Your task to perform on an android device: What's the weather? Image 0: 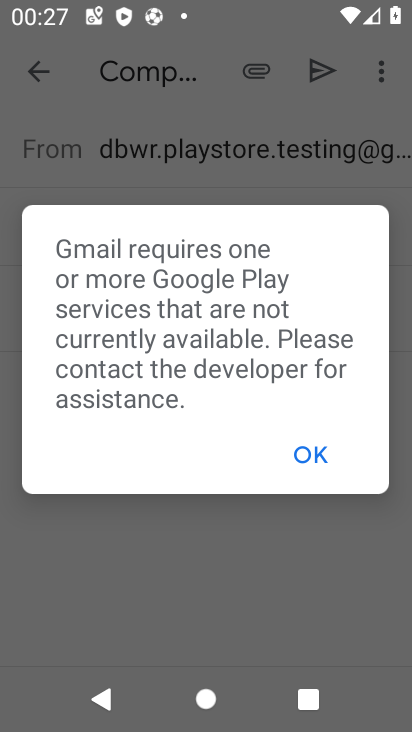
Step 0: click (313, 463)
Your task to perform on an android device: What's the weather? Image 1: 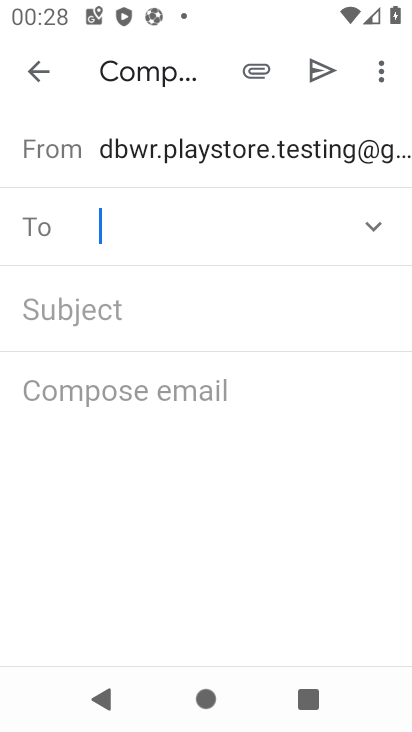
Step 1: drag from (221, 406) to (264, 633)
Your task to perform on an android device: What's the weather? Image 2: 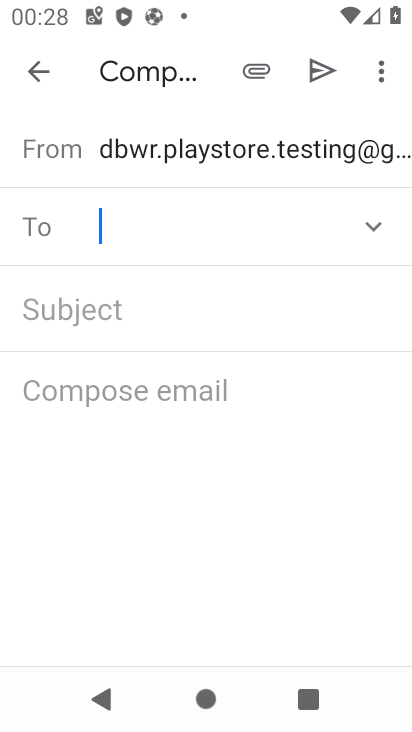
Step 2: press home button
Your task to perform on an android device: What's the weather? Image 3: 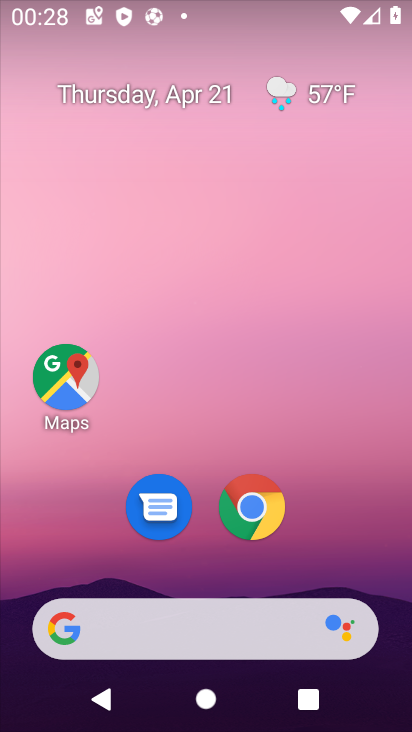
Step 3: drag from (233, 187) to (252, 99)
Your task to perform on an android device: What's the weather? Image 4: 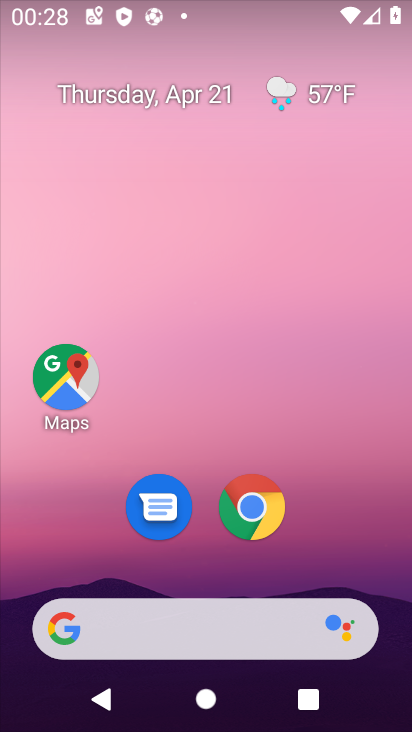
Step 4: click (241, 517)
Your task to perform on an android device: What's the weather? Image 5: 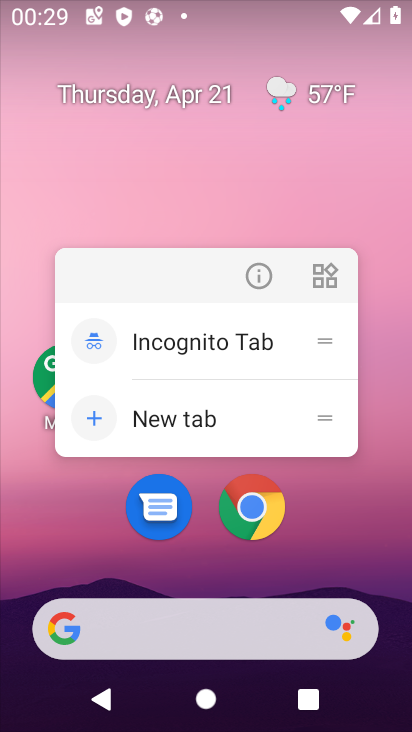
Step 5: click (259, 277)
Your task to perform on an android device: What's the weather? Image 6: 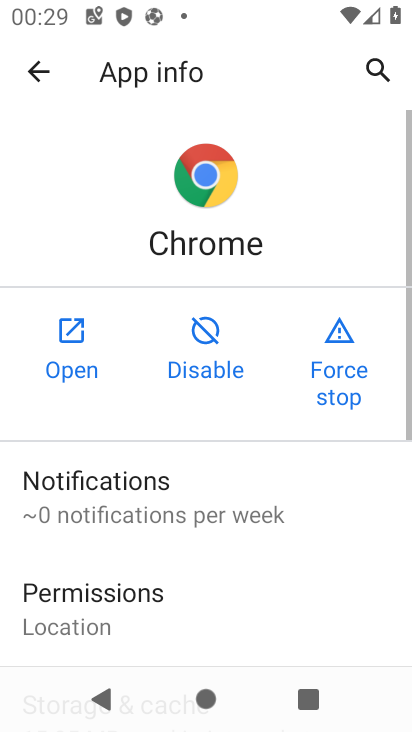
Step 6: click (86, 324)
Your task to perform on an android device: What's the weather? Image 7: 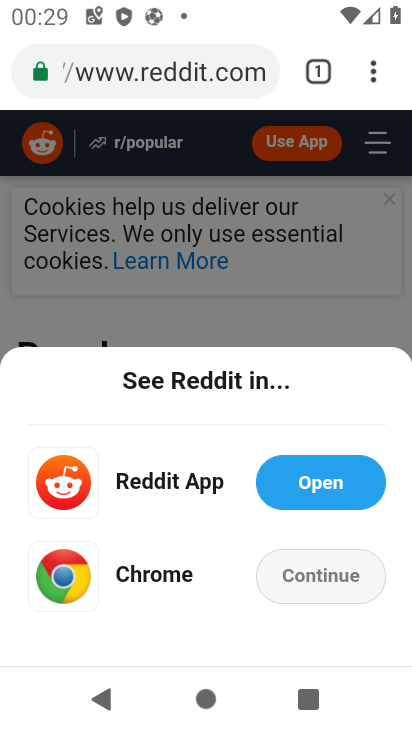
Step 7: drag from (245, 251) to (318, 655)
Your task to perform on an android device: What's the weather? Image 8: 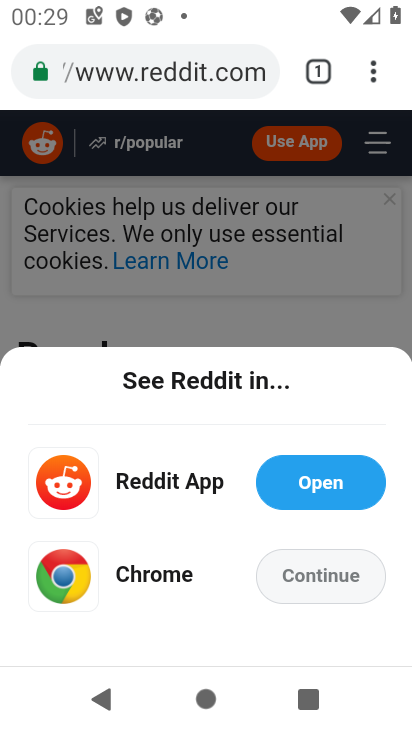
Step 8: click (199, 77)
Your task to perform on an android device: What's the weather? Image 9: 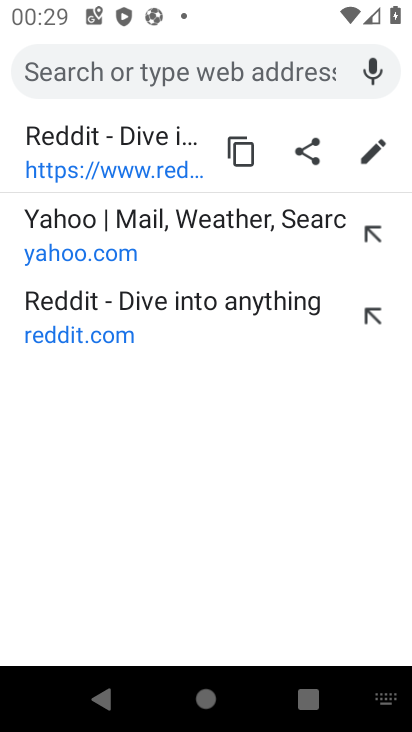
Step 9: type "weather"
Your task to perform on an android device: What's the weather? Image 10: 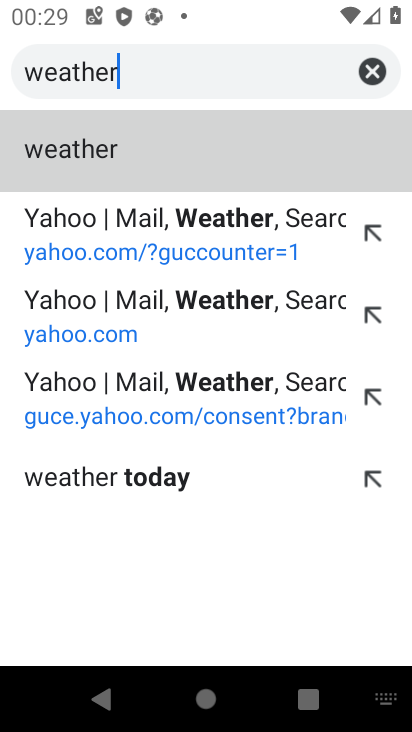
Step 10: click (88, 154)
Your task to perform on an android device: What's the weather? Image 11: 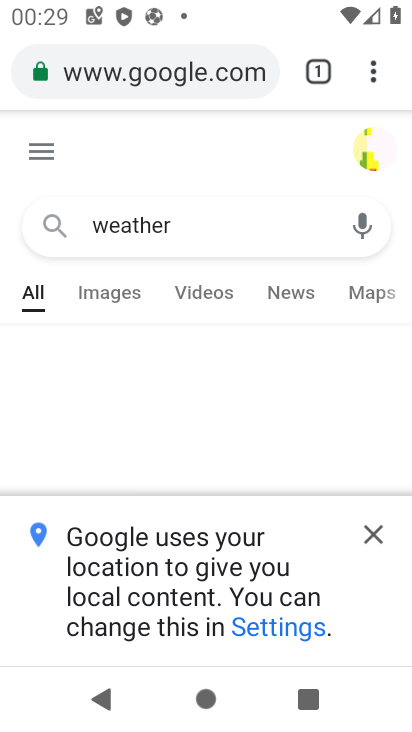
Step 11: task complete